Your task to perform on an android device: Go to settings Image 0: 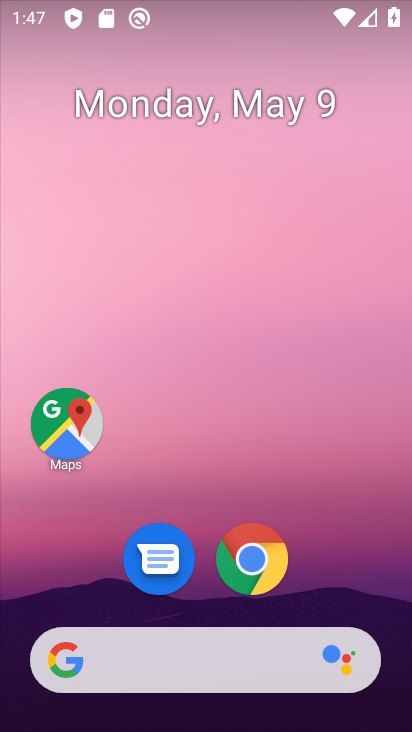
Step 0: drag from (359, 566) to (353, 116)
Your task to perform on an android device: Go to settings Image 1: 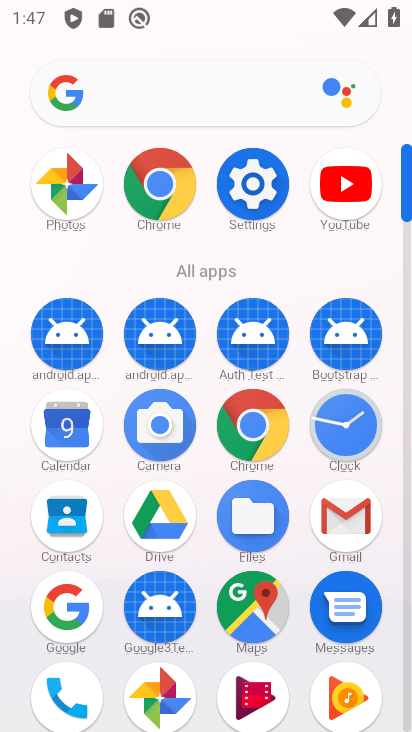
Step 1: click (244, 196)
Your task to perform on an android device: Go to settings Image 2: 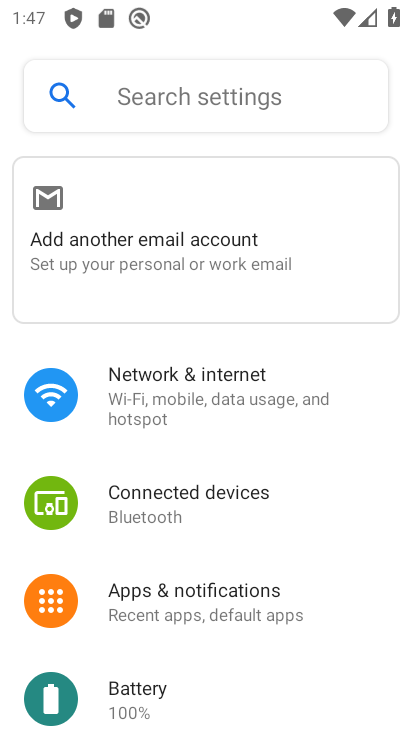
Step 2: task complete